Your task to perform on an android device: add a label to a message in the gmail app Image 0: 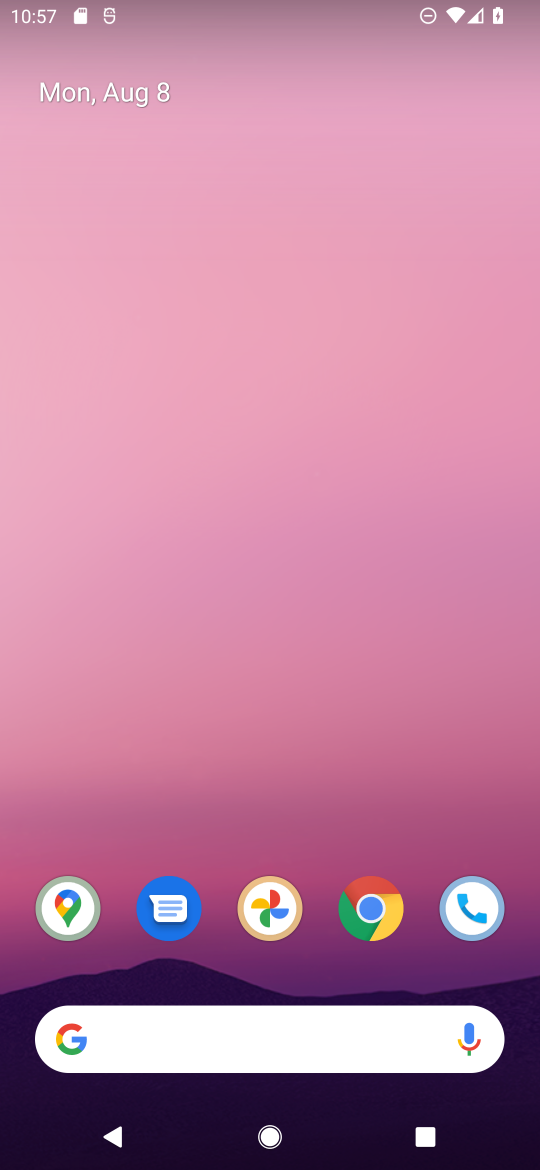
Step 0: drag from (299, 841) to (351, 0)
Your task to perform on an android device: add a label to a message in the gmail app Image 1: 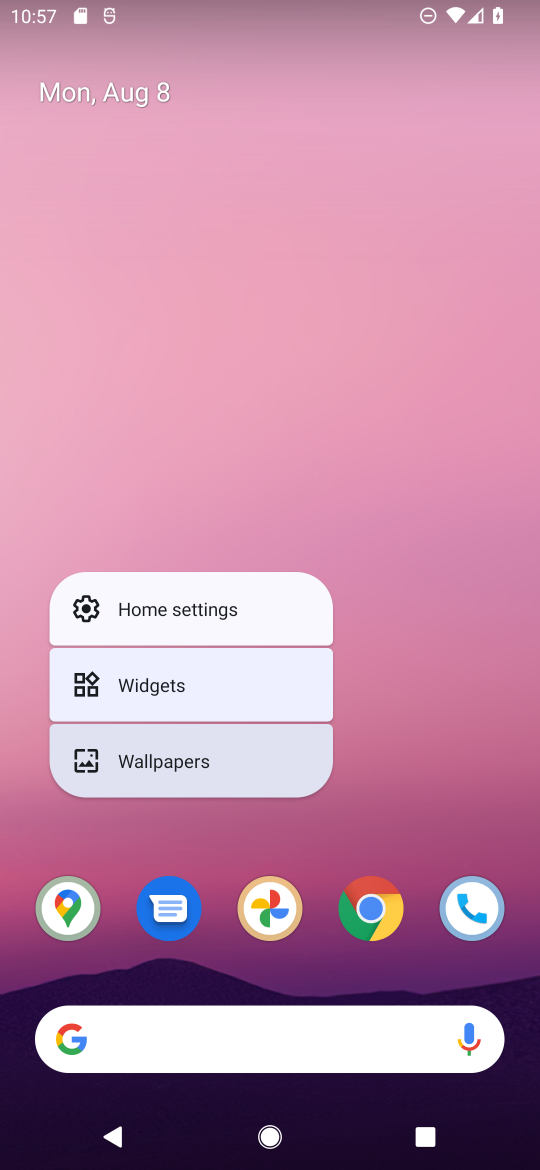
Step 1: click (383, 816)
Your task to perform on an android device: add a label to a message in the gmail app Image 2: 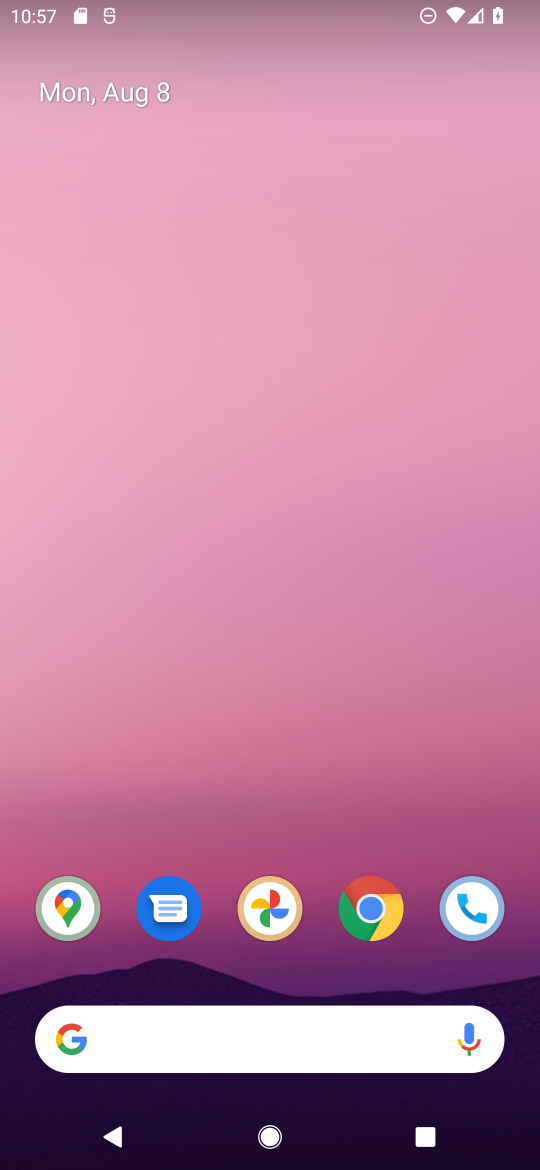
Step 2: drag from (428, 835) to (477, 10)
Your task to perform on an android device: add a label to a message in the gmail app Image 3: 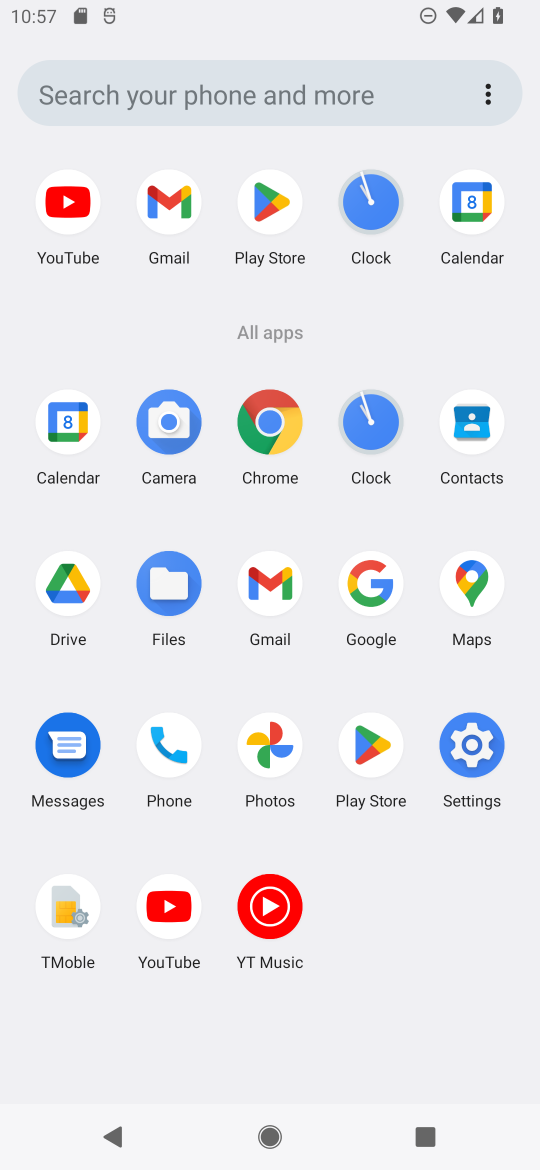
Step 3: click (268, 571)
Your task to perform on an android device: add a label to a message in the gmail app Image 4: 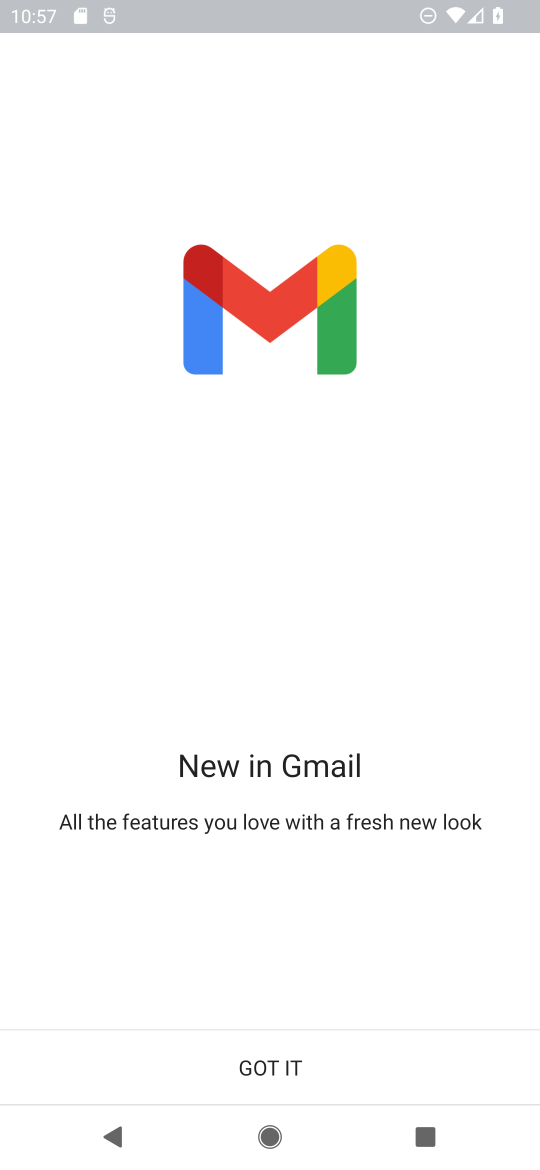
Step 4: click (270, 1056)
Your task to perform on an android device: add a label to a message in the gmail app Image 5: 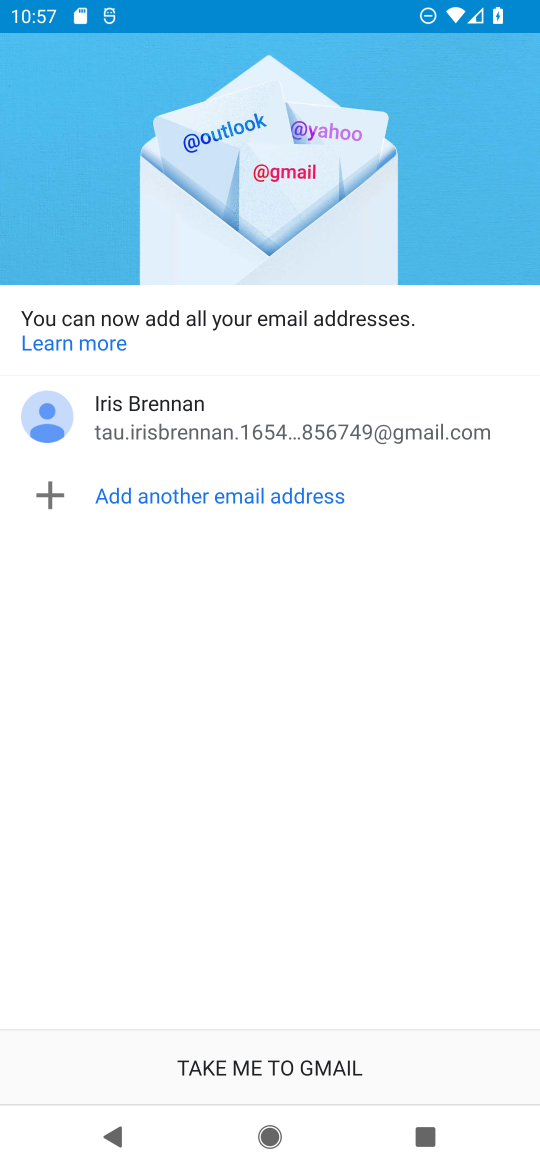
Step 5: click (266, 1060)
Your task to perform on an android device: add a label to a message in the gmail app Image 6: 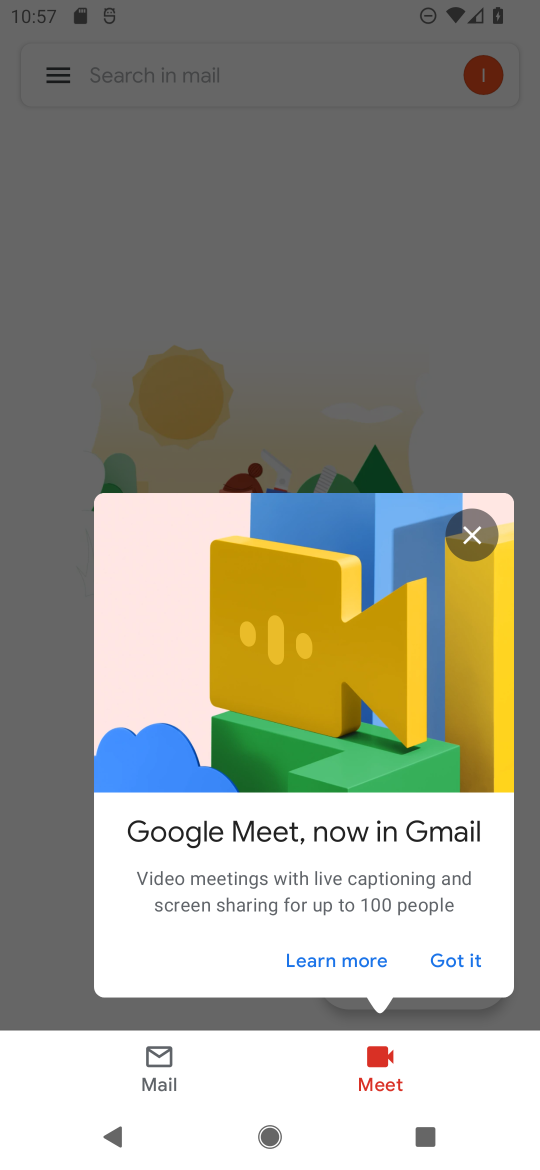
Step 6: click (462, 962)
Your task to perform on an android device: add a label to a message in the gmail app Image 7: 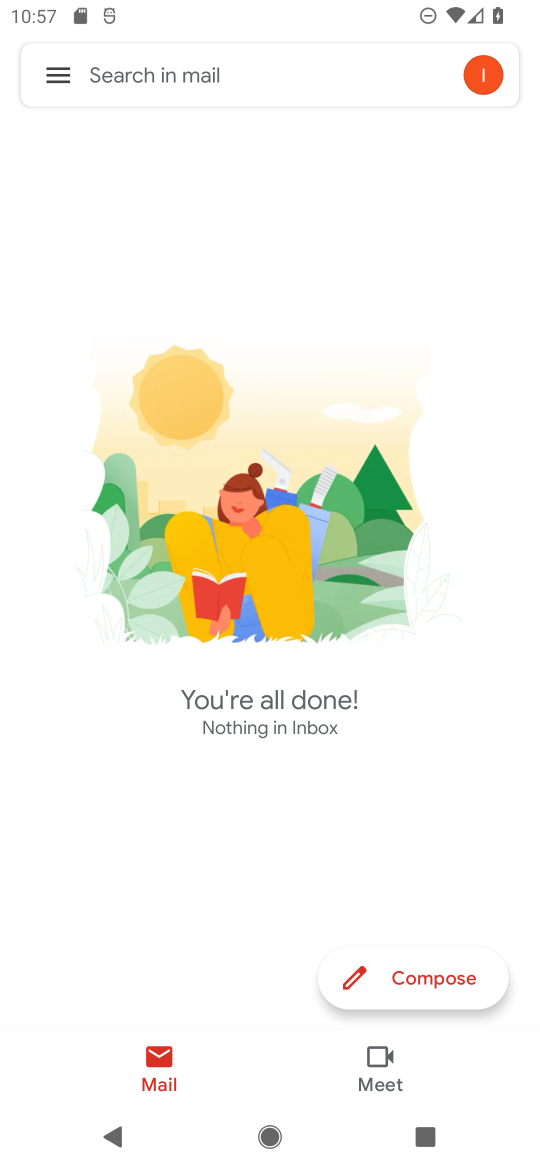
Step 7: click (61, 63)
Your task to perform on an android device: add a label to a message in the gmail app Image 8: 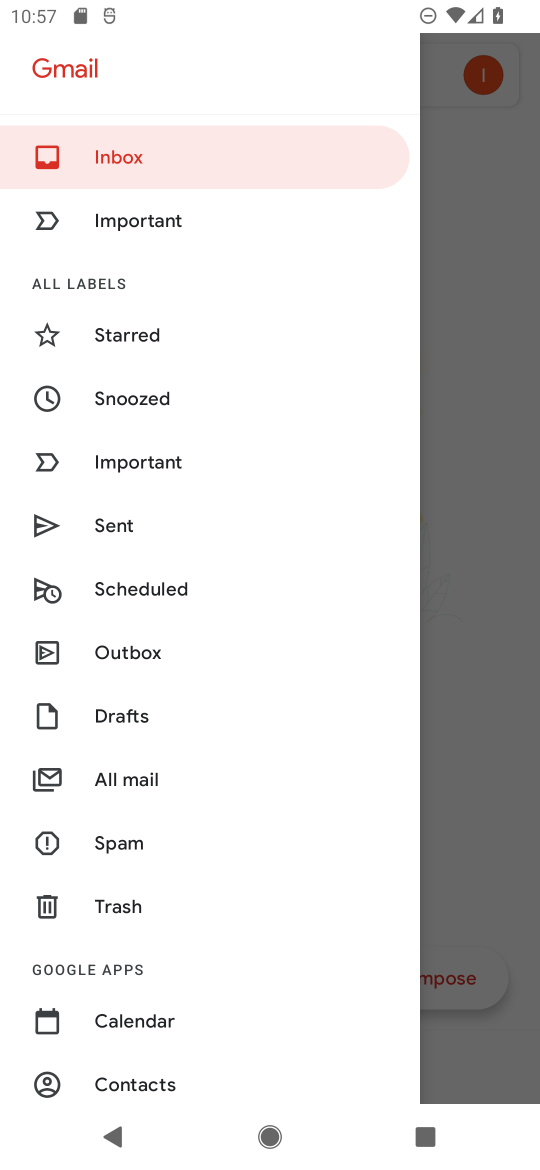
Step 8: click (148, 785)
Your task to perform on an android device: add a label to a message in the gmail app Image 9: 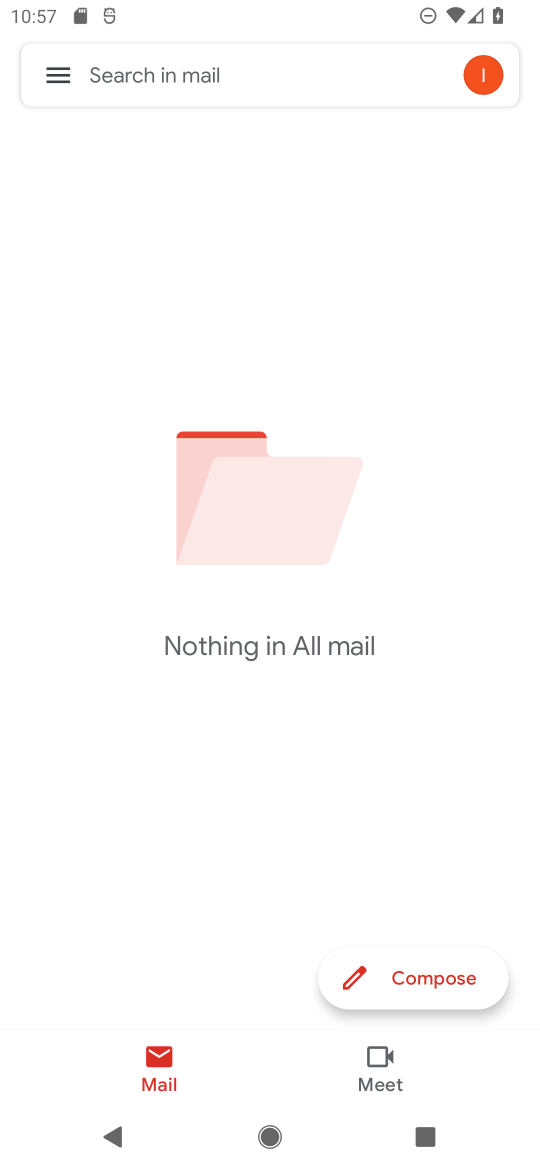
Step 9: task complete